Your task to perform on an android device: turn on wifi Image 0: 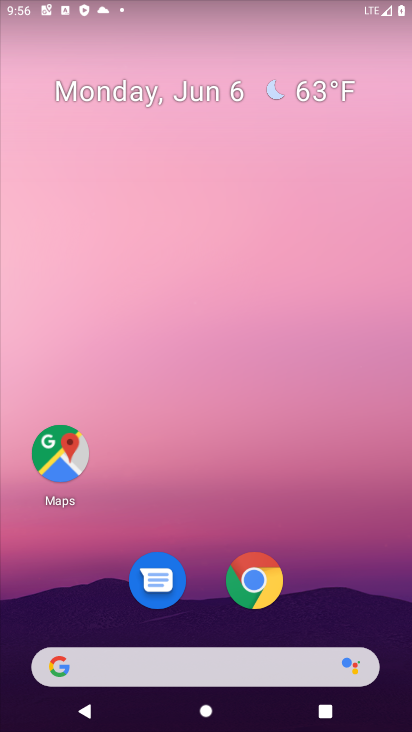
Step 0: drag from (352, 628) to (332, 45)
Your task to perform on an android device: turn on wifi Image 1: 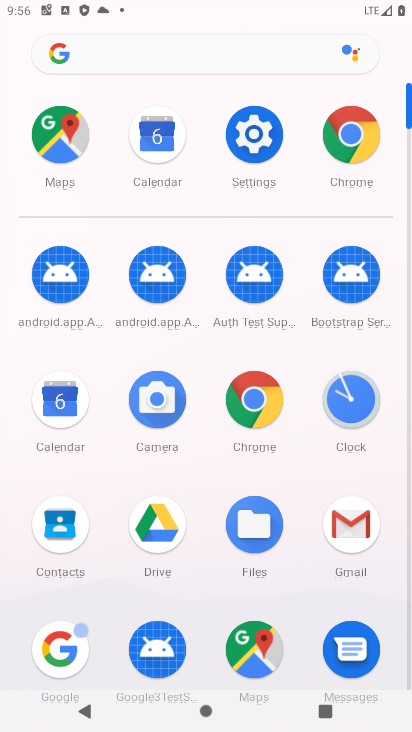
Step 1: click (267, 142)
Your task to perform on an android device: turn on wifi Image 2: 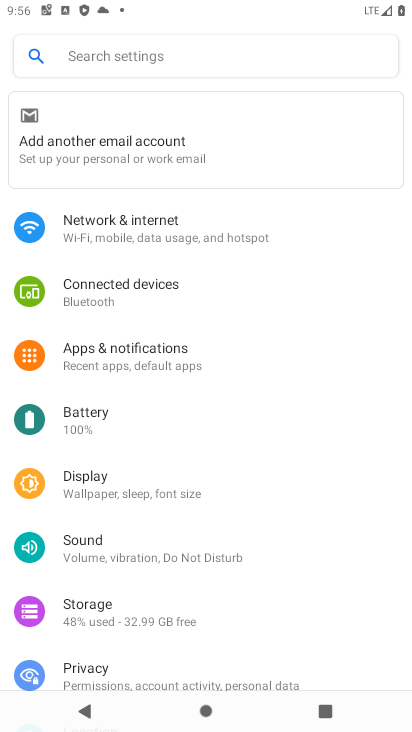
Step 2: click (119, 234)
Your task to perform on an android device: turn on wifi Image 3: 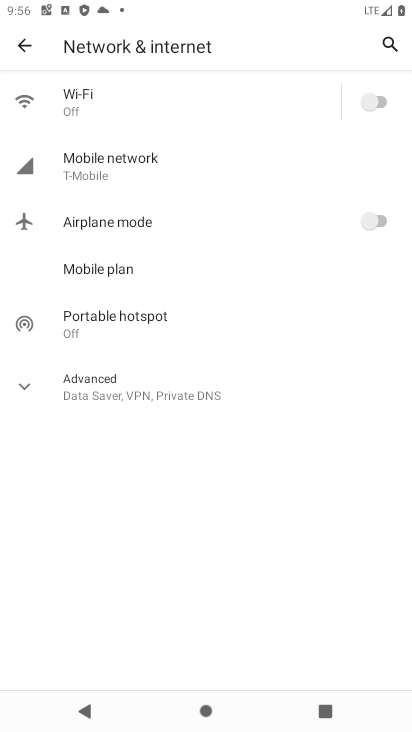
Step 3: click (366, 96)
Your task to perform on an android device: turn on wifi Image 4: 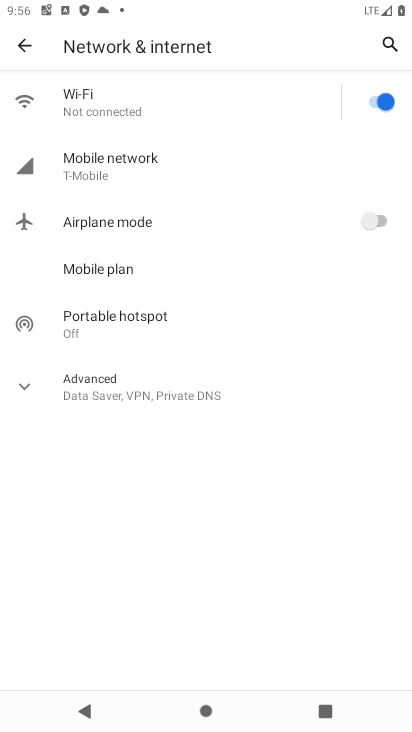
Step 4: task complete